Your task to perform on an android device: Add usb-c to usb-b to the cart on bestbuy.com, then select checkout. Image 0: 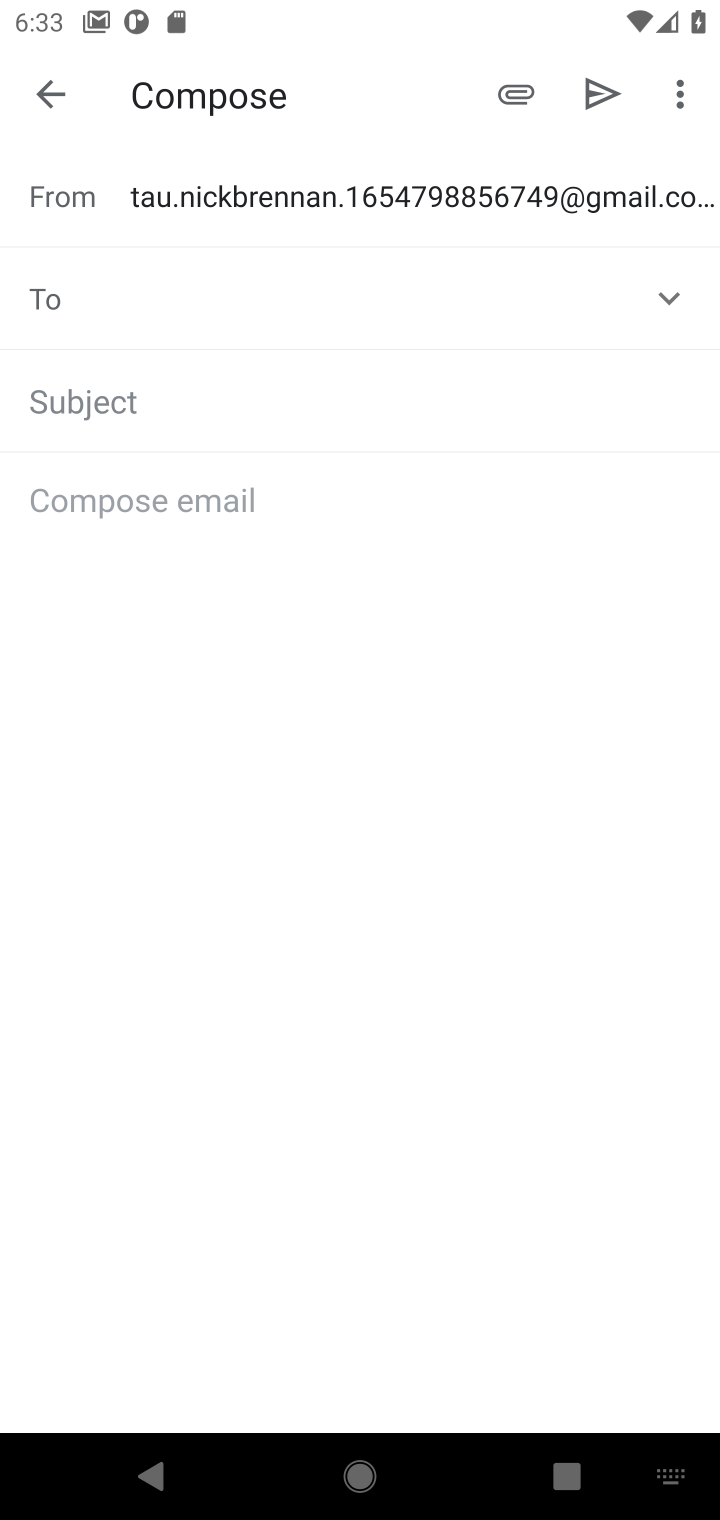
Step 0: press home button
Your task to perform on an android device: Add usb-c to usb-b to the cart on bestbuy.com, then select checkout. Image 1: 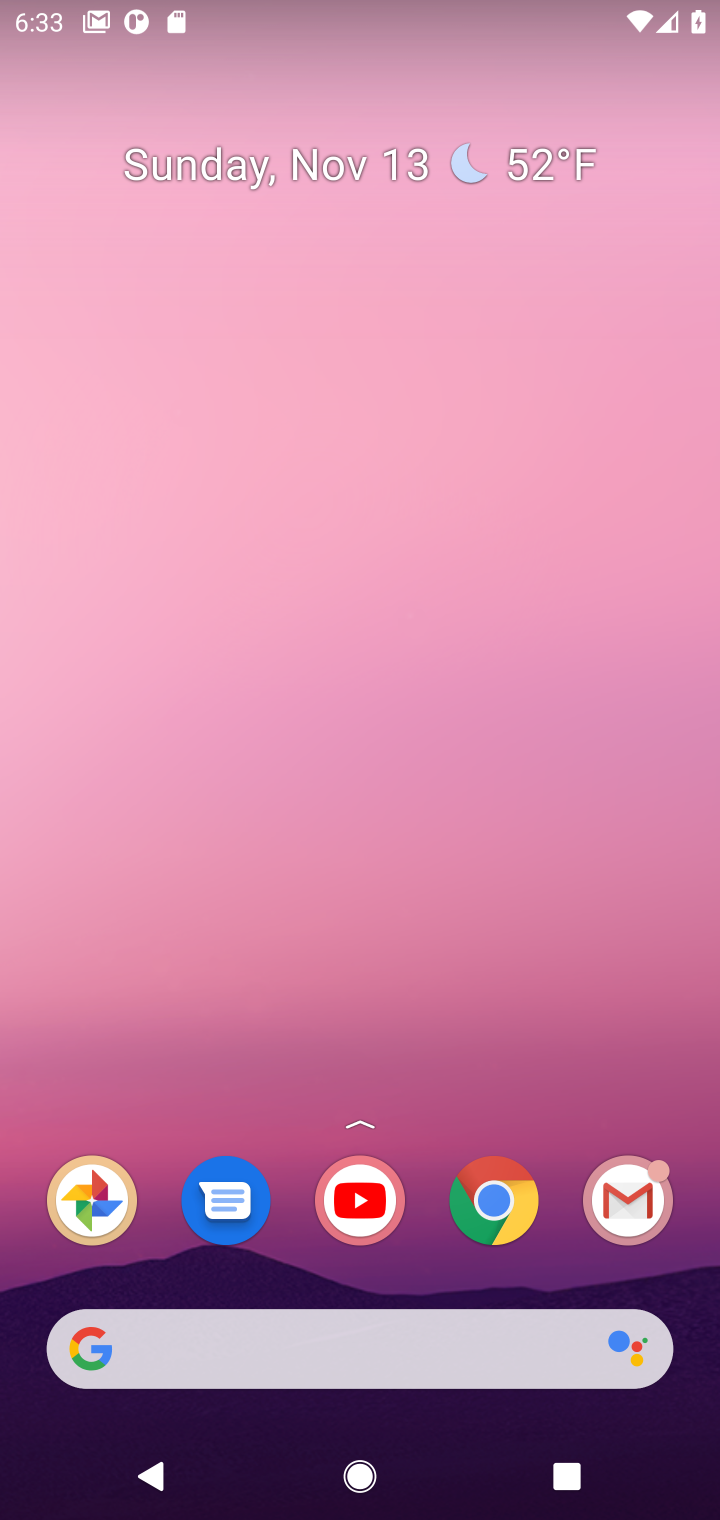
Step 1: click (494, 1211)
Your task to perform on an android device: Add usb-c to usb-b to the cart on bestbuy.com, then select checkout. Image 2: 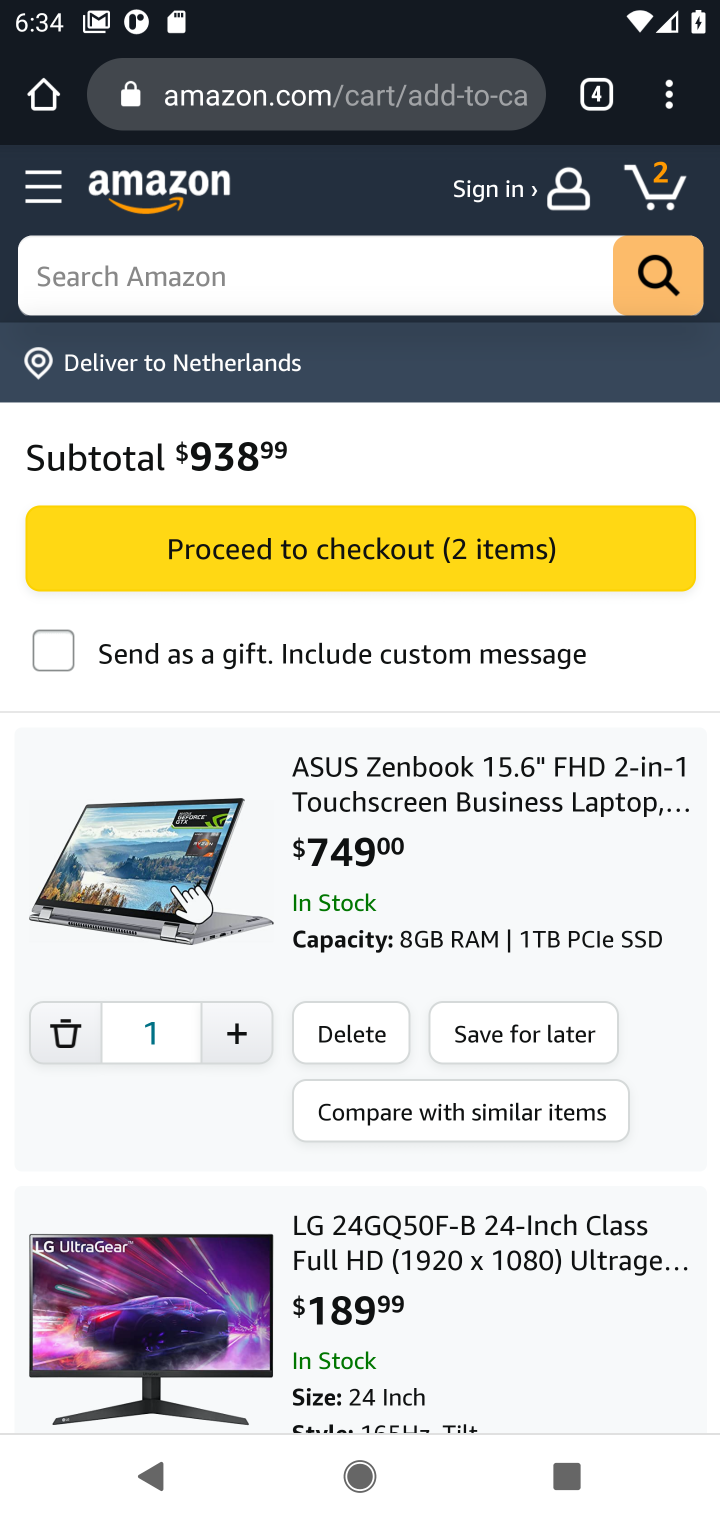
Step 2: click (594, 98)
Your task to perform on an android device: Add usb-c to usb-b to the cart on bestbuy.com, then select checkout. Image 3: 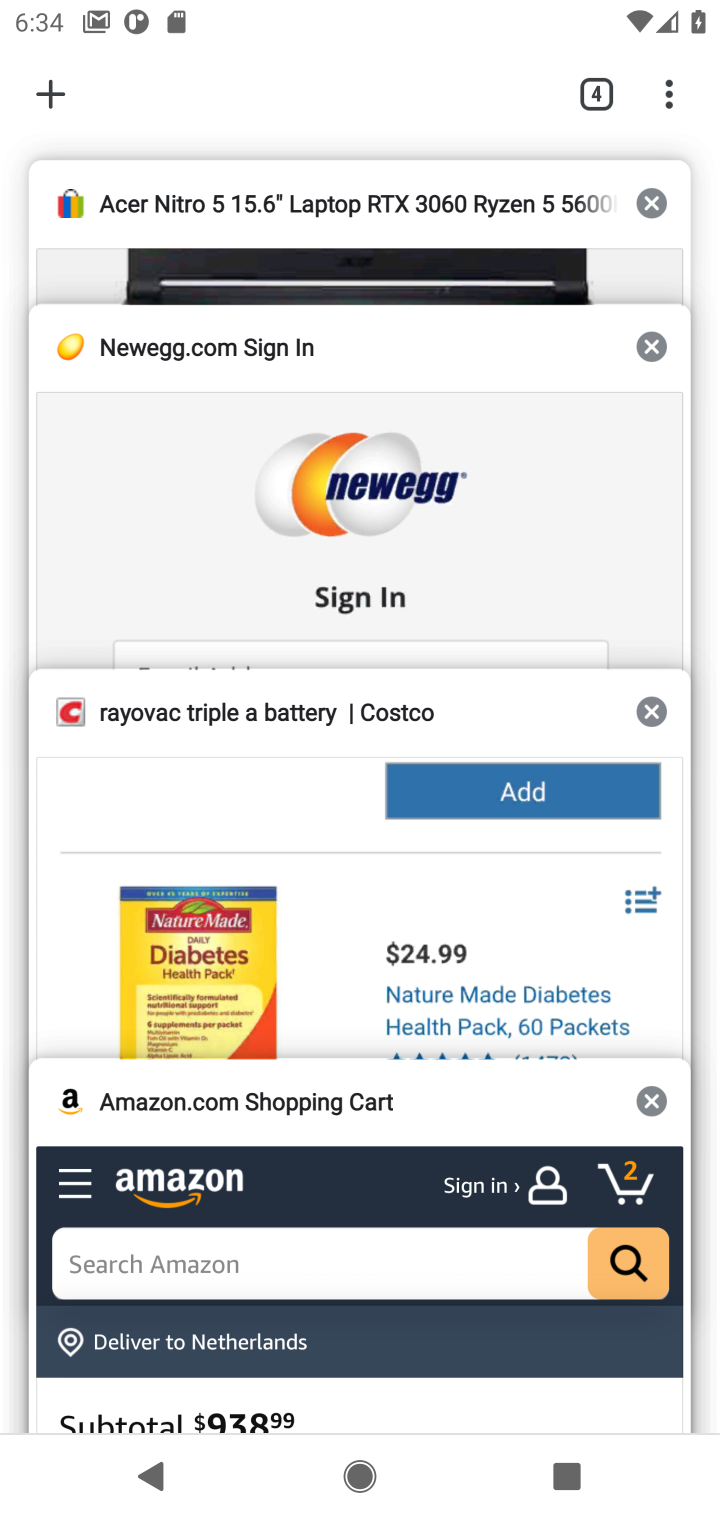
Step 3: click (43, 87)
Your task to perform on an android device: Add usb-c to usb-b to the cart on bestbuy.com, then select checkout. Image 4: 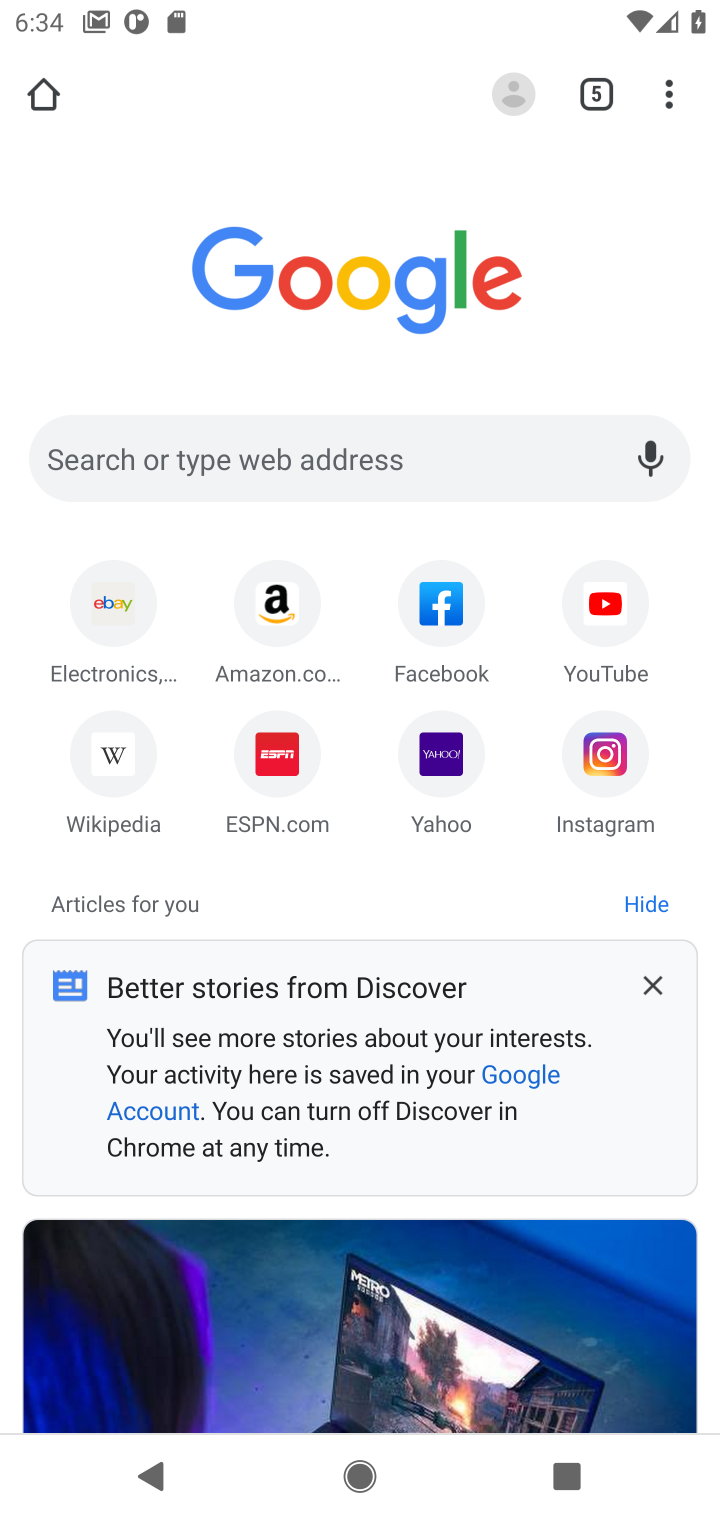
Step 4: click (388, 440)
Your task to perform on an android device: Add usb-c to usb-b to the cart on bestbuy.com, then select checkout. Image 5: 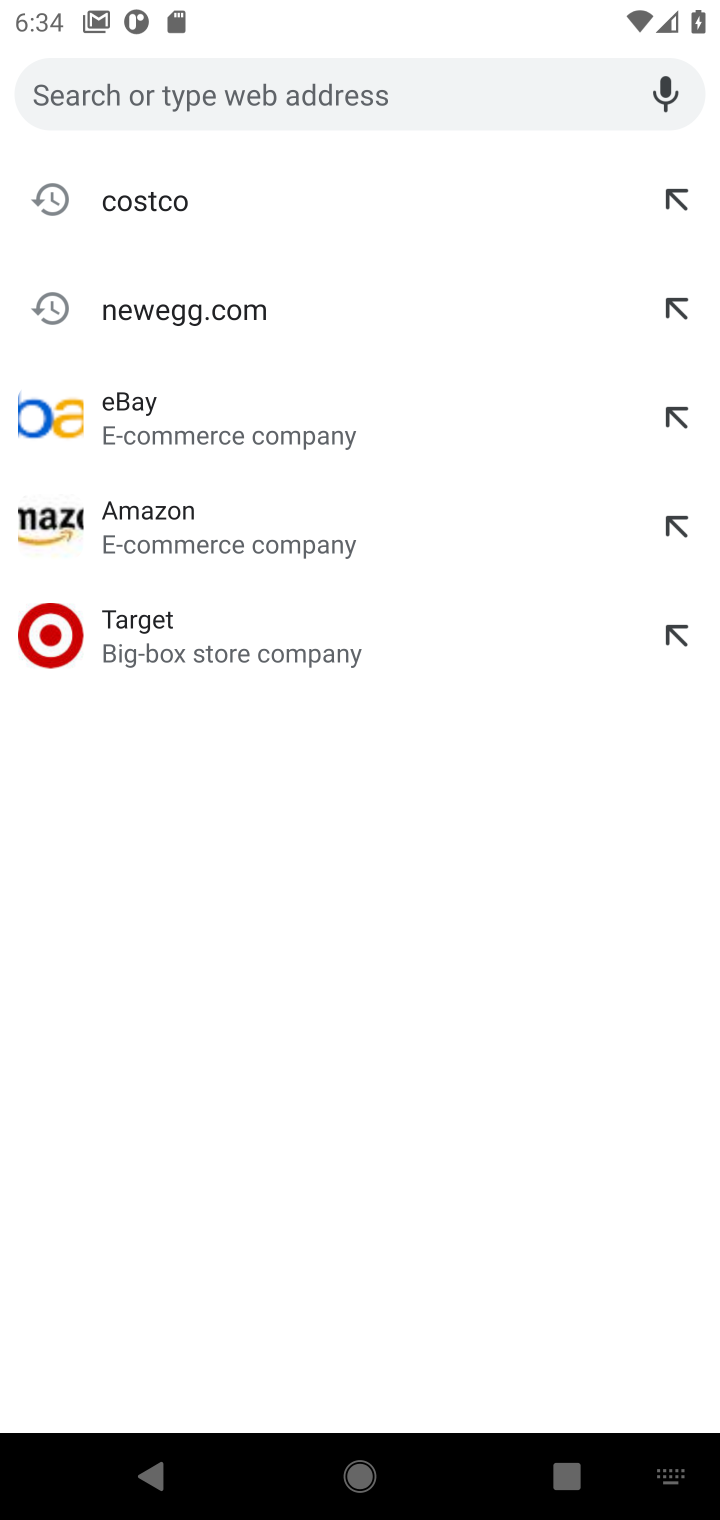
Step 5: type "bestbuy"
Your task to perform on an android device: Add usb-c to usb-b to the cart on bestbuy.com, then select checkout. Image 6: 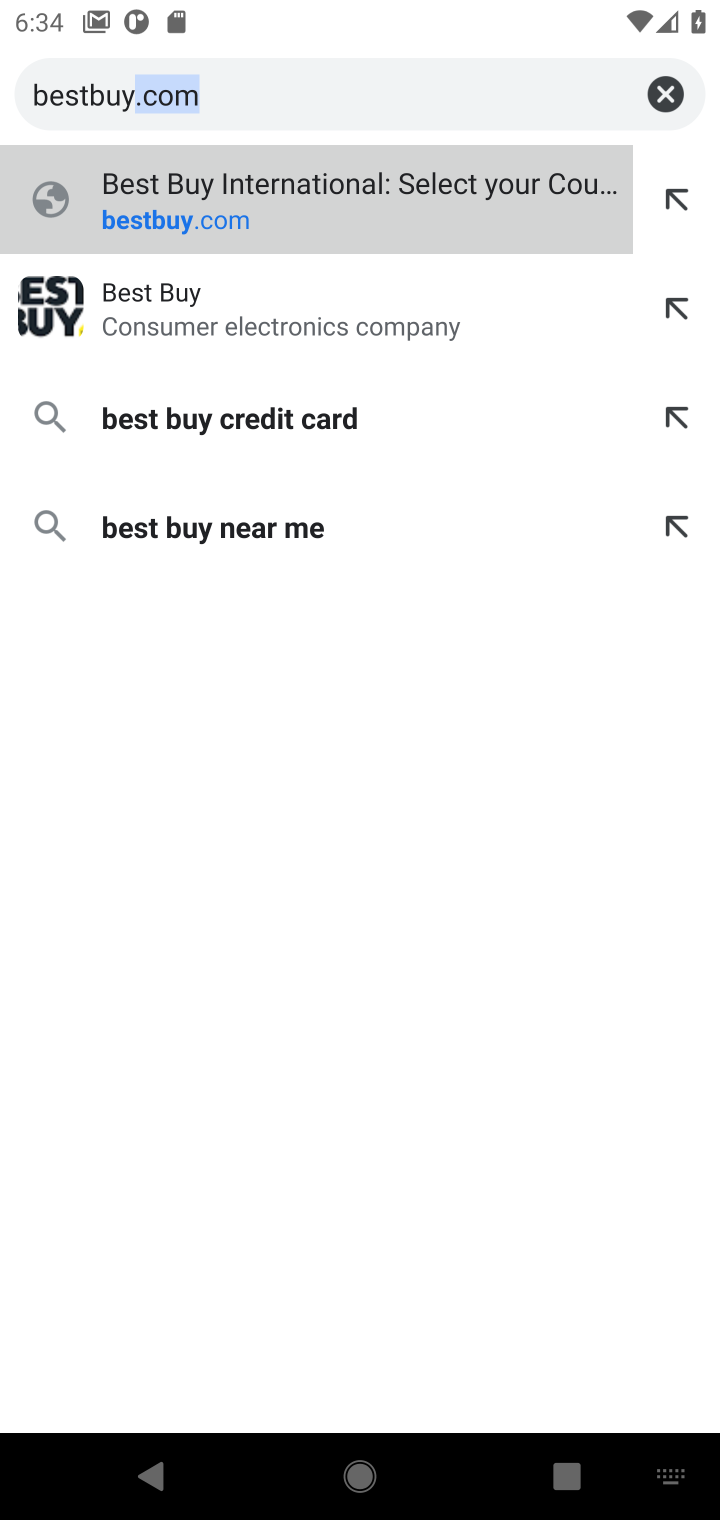
Step 6: click (188, 183)
Your task to perform on an android device: Add usb-c to usb-b to the cart on bestbuy.com, then select checkout. Image 7: 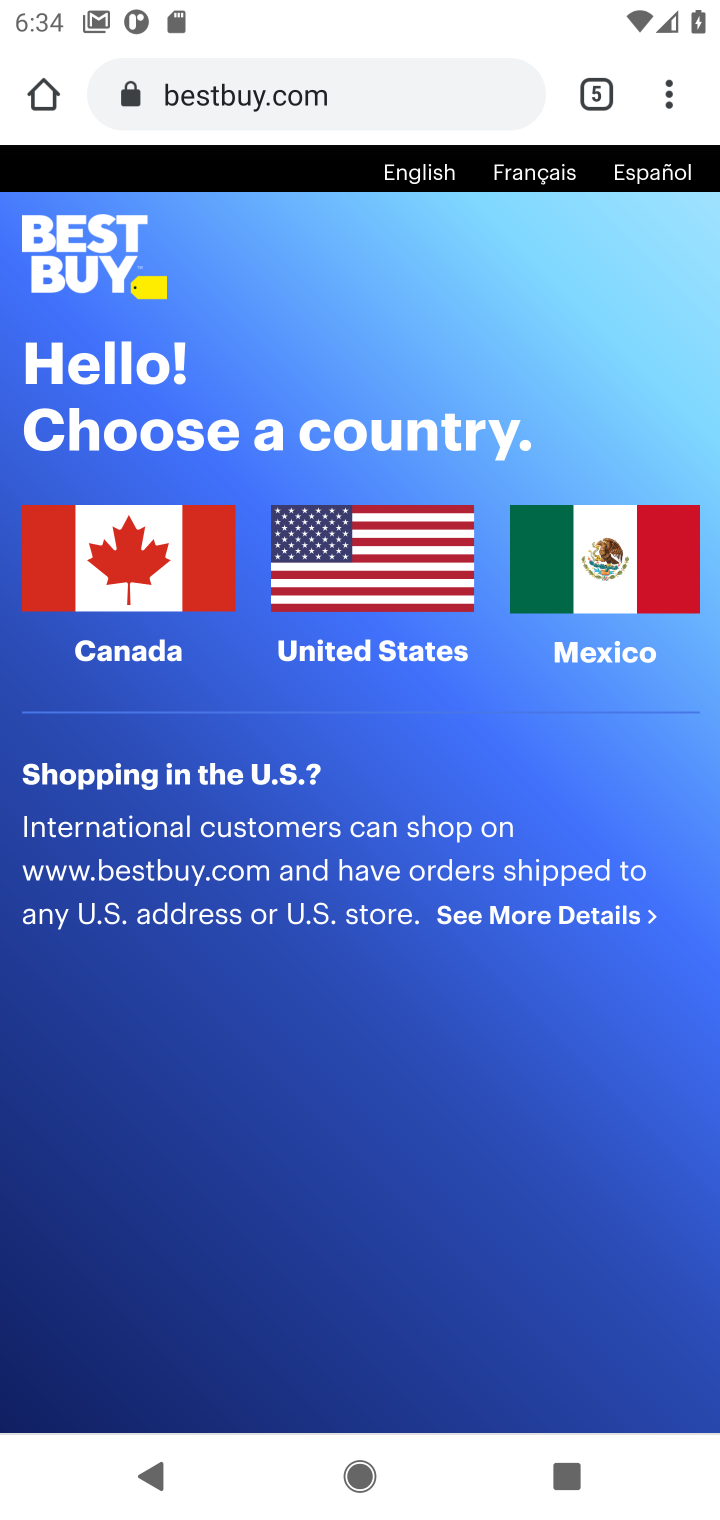
Step 7: click (356, 538)
Your task to perform on an android device: Add usb-c to usb-b to the cart on bestbuy.com, then select checkout. Image 8: 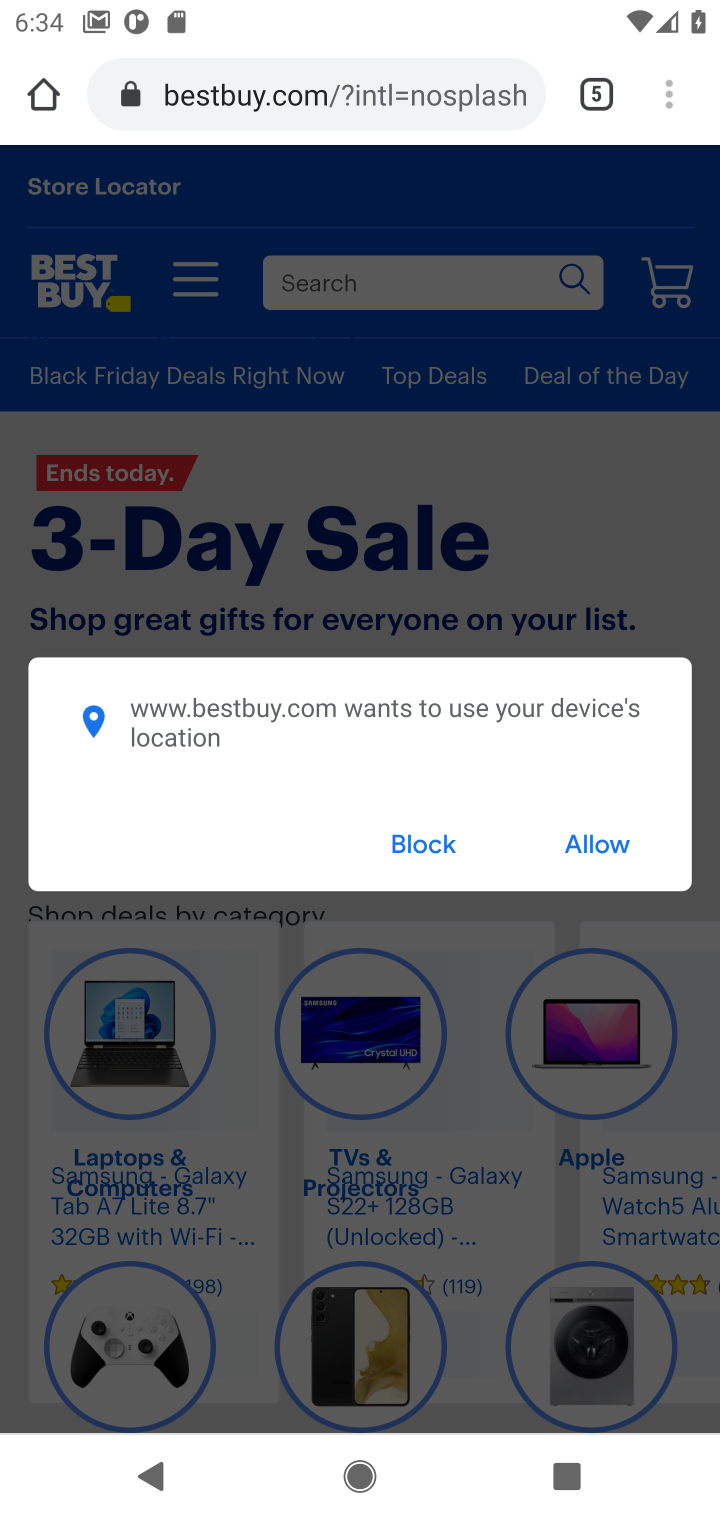
Step 8: click (408, 832)
Your task to perform on an android device: Add usb-c to usb-b to the cart on bestbuy.com, then select checkout. Image 9: 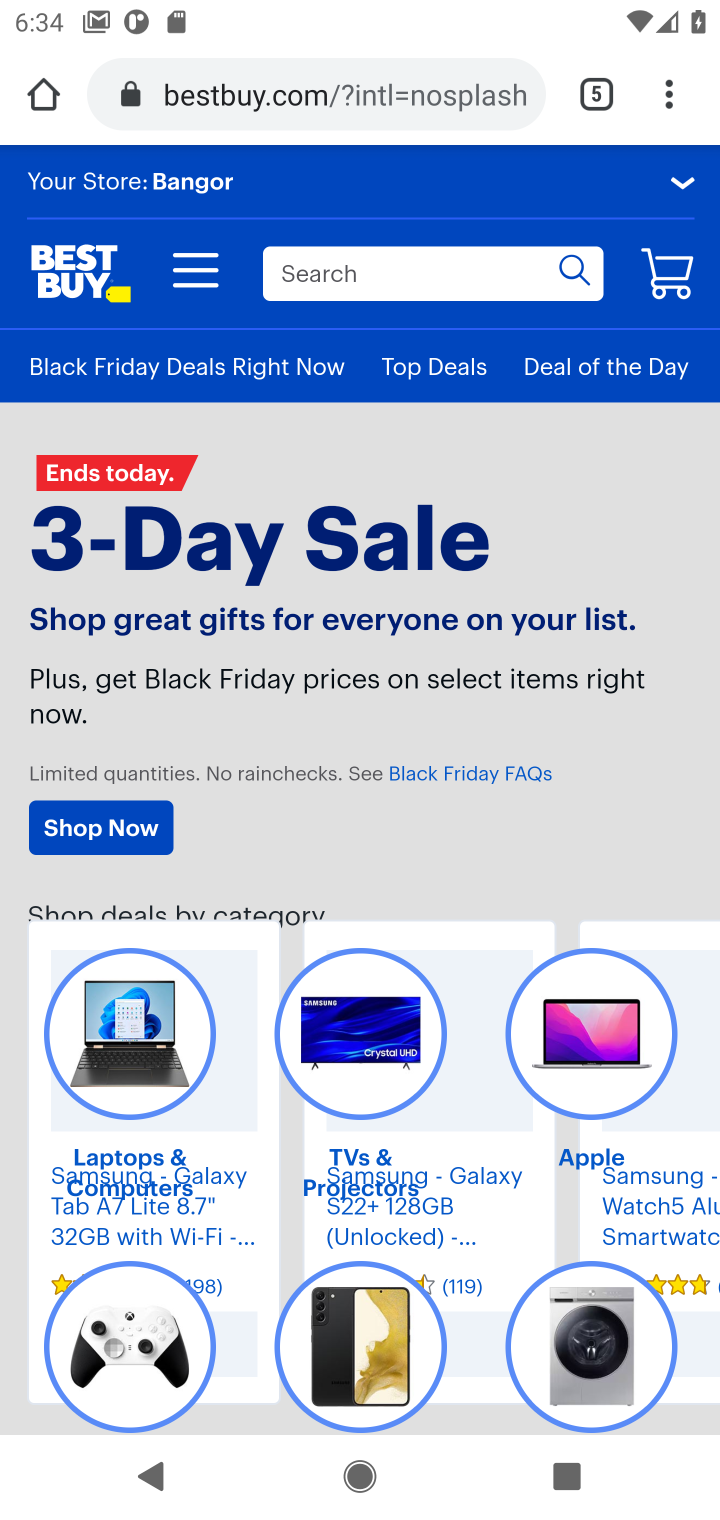
Step 9: click (359, 266)
Your task to perform on an android device: Add usb-c to usb-b to the cart on bestbuy.com, then select checkout. Image 10: 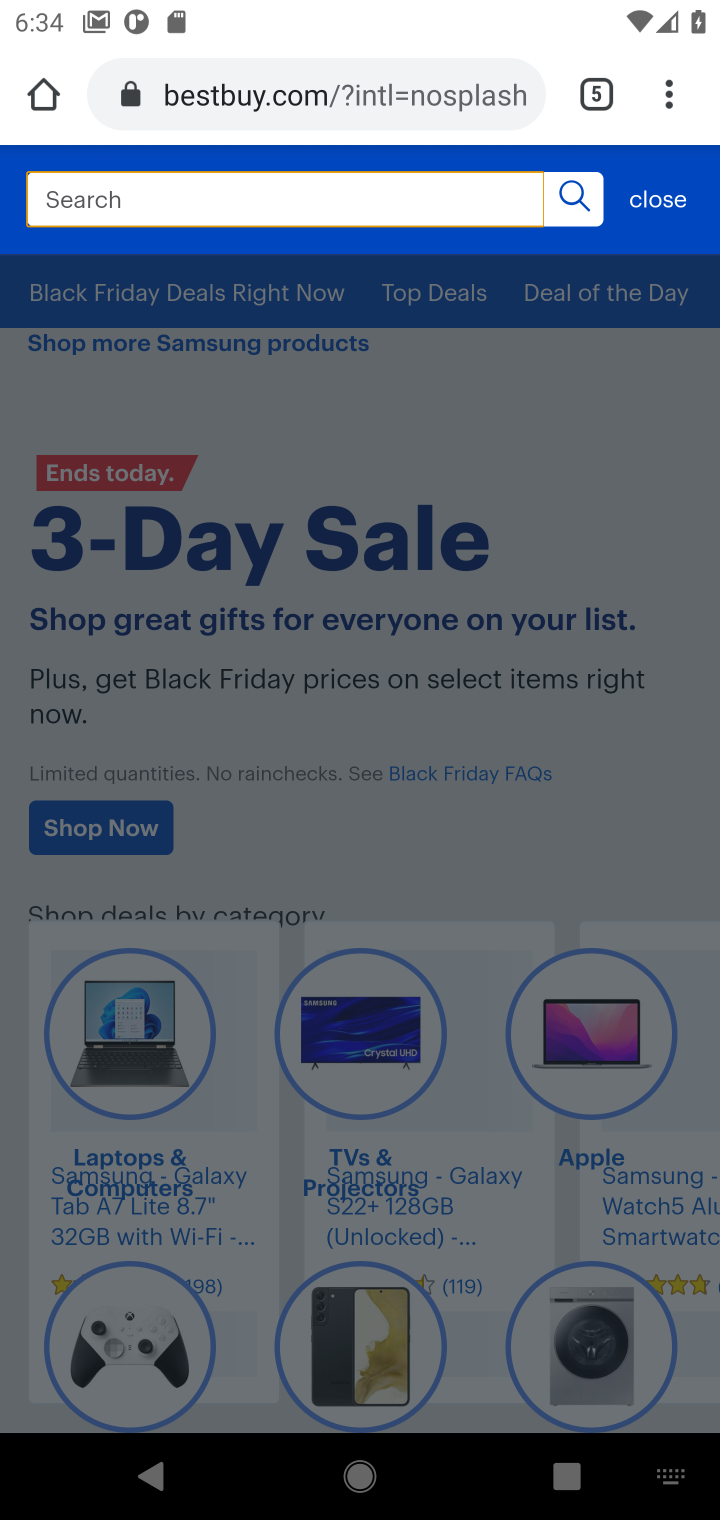
Step 10: type "usb-c to usb-b"
Your task to perform on an android device: Add usb-c to usb-b to the cart on bestbuy.com, then select checkout. Image 11: 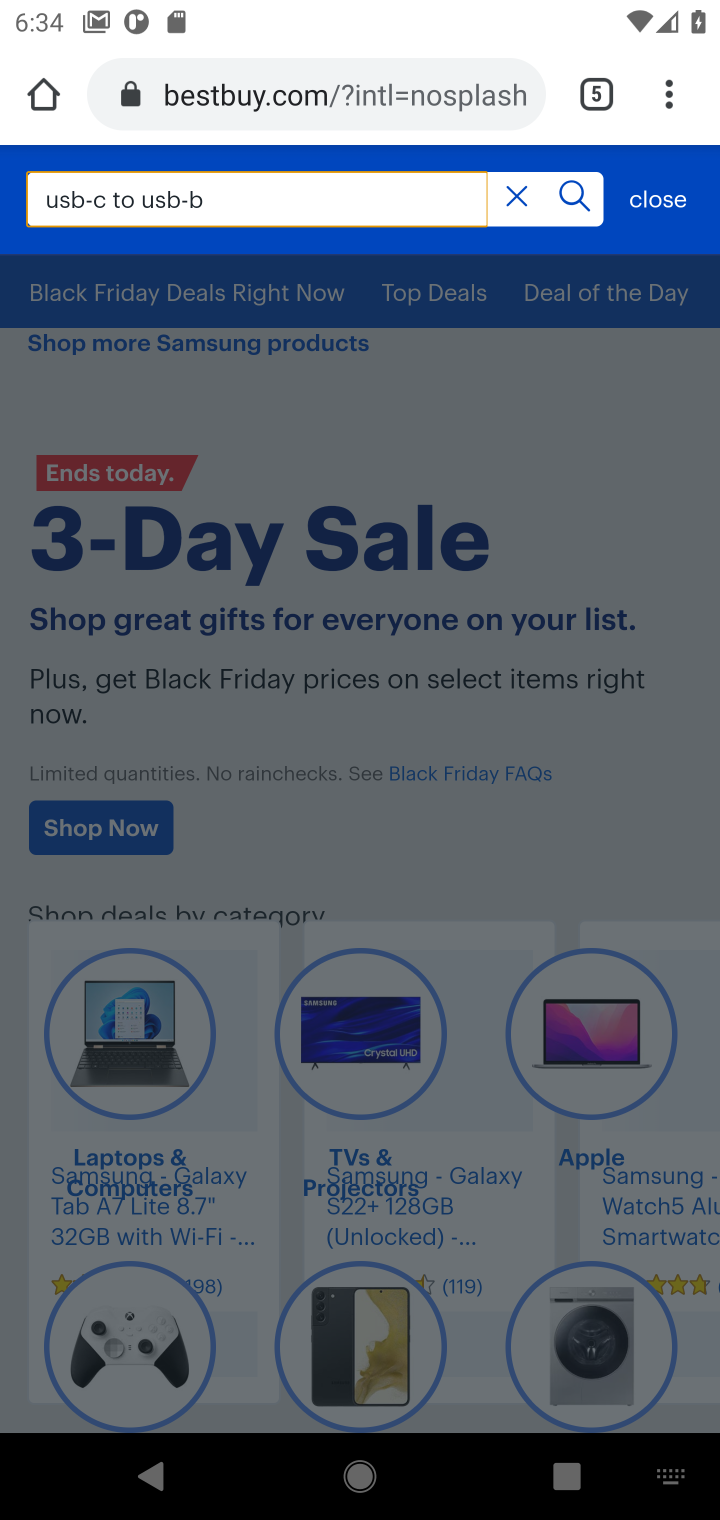
Step 11: click (571, 193)
Your task to perform on an android device: Add usb-c to usb-b to the cart on bestbuy.com, then select checkout. Image 12: 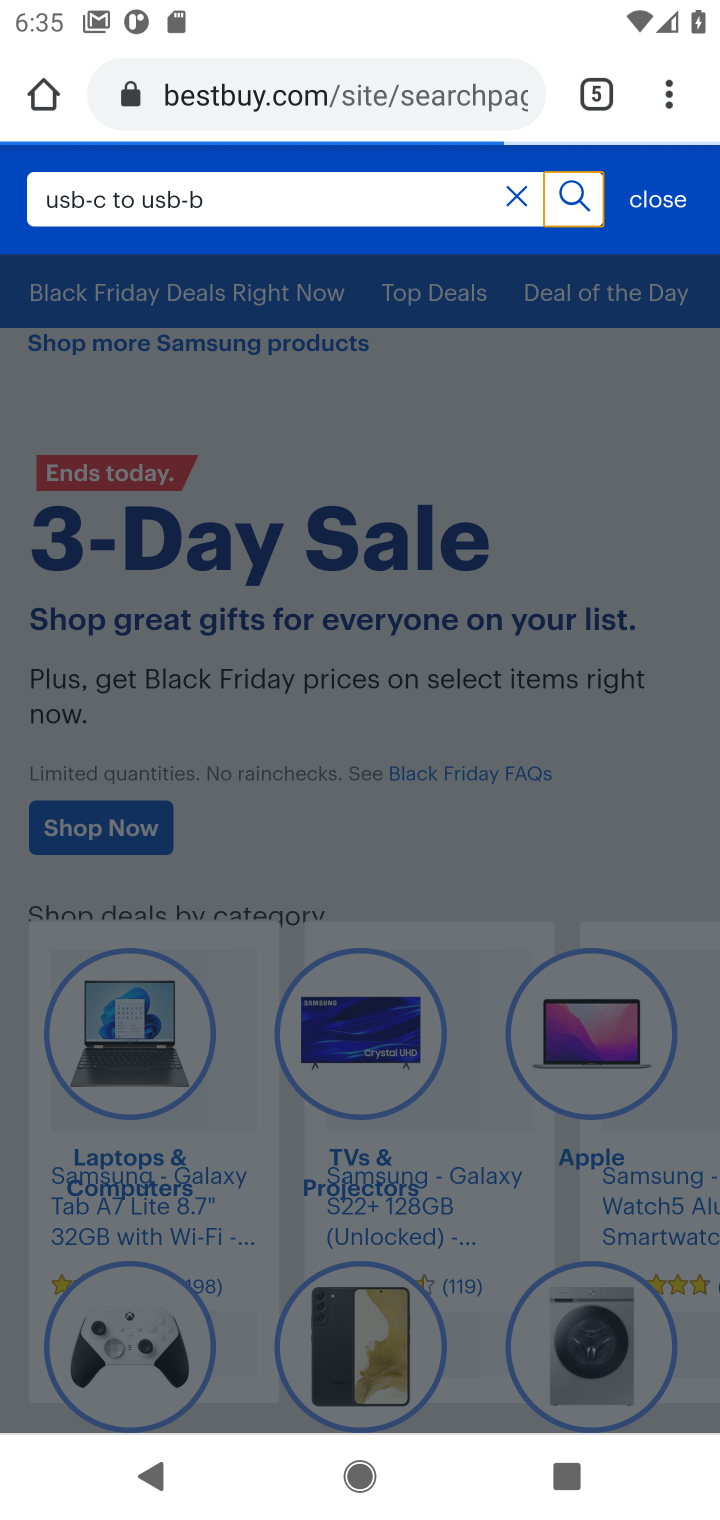
Step 12: click (571, 193)
Your task to perform on an android device: Add usb-c to usb-b to the cart on bestbuy.com, then select checkout. Image 13: 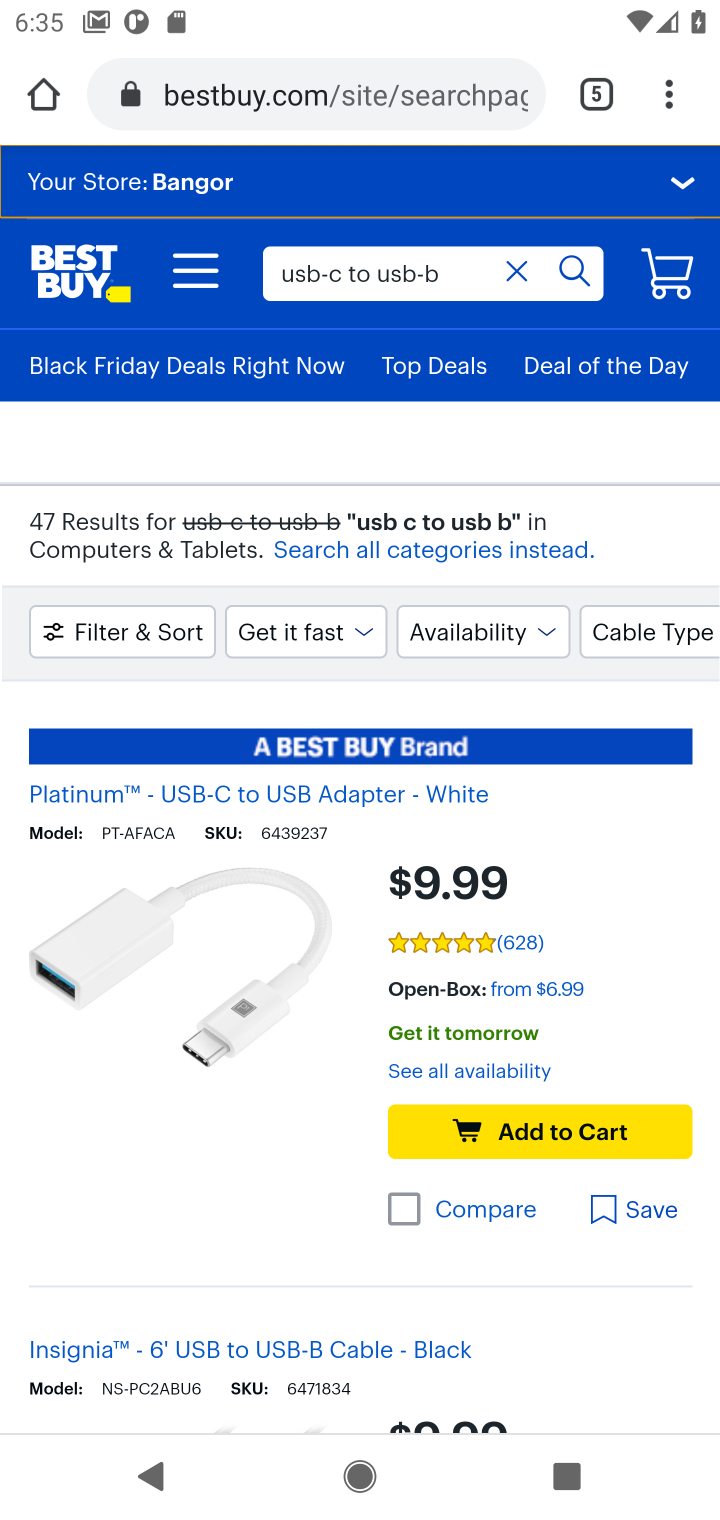
Step 13: click (540, 1134)
Your task to perform on an android device: Add usb-c to usb-b to the cart on bestbuy.com, then select checkout. Image 14: 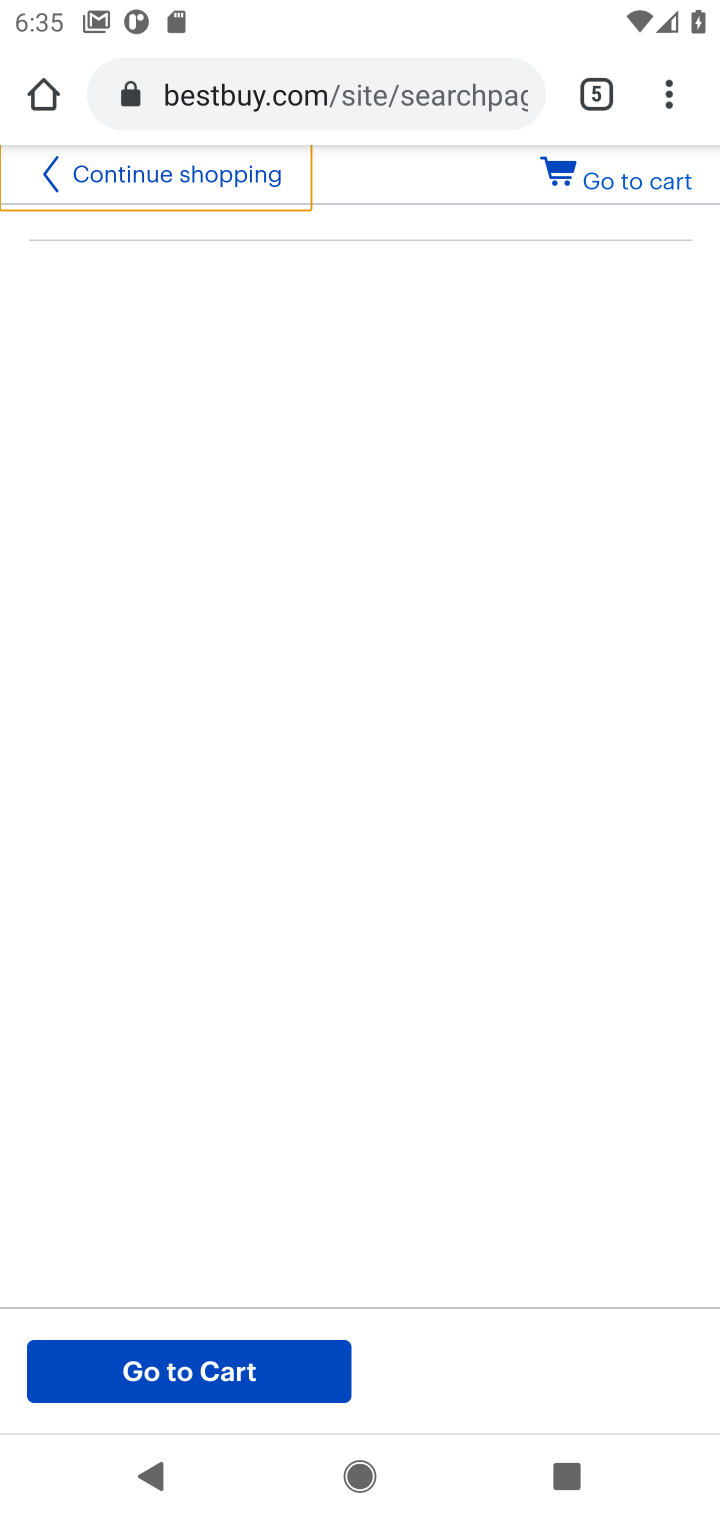
Step 14: task complete